Your task to perform on an android device: open chrome privacy settings Image 0: 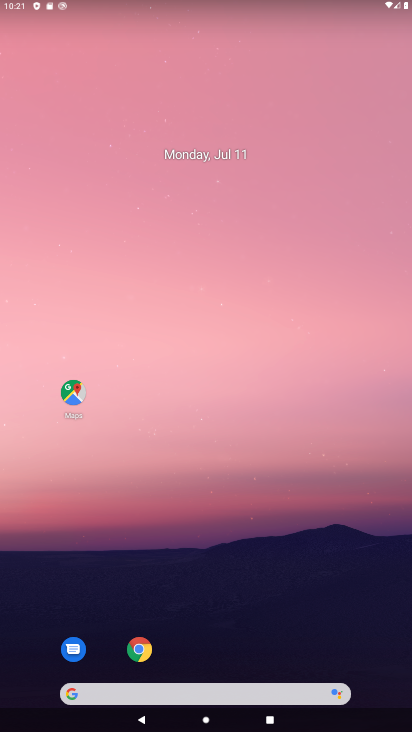
Step 0: click (140, 650)
Your task to perform on an android device: open chrome privacy settings Image 1: 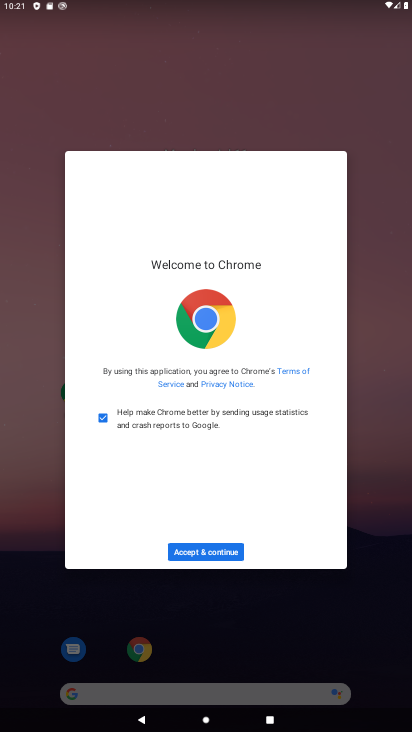
Step 1: click (224, 553)
Your task to perform on an android device: open chrome privacy settings Image 2: 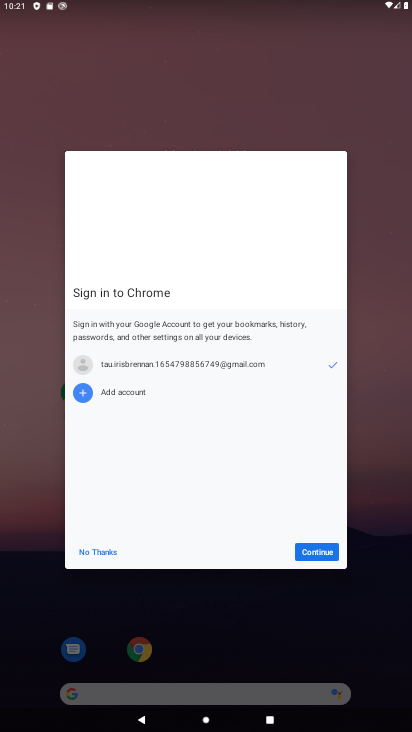
Step 2: click (311, 551)
Your task to perform on an android device: open chrome privacy settings Image 3: 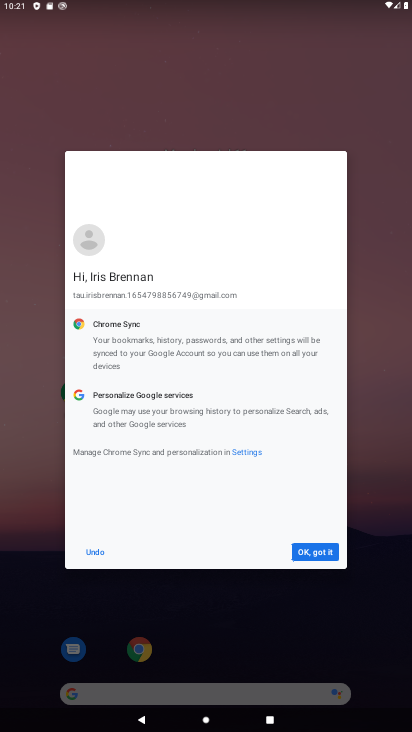
Step 3: click (311, 551)
Your task to perform on an android device: open chrome privacy settings Image 4: 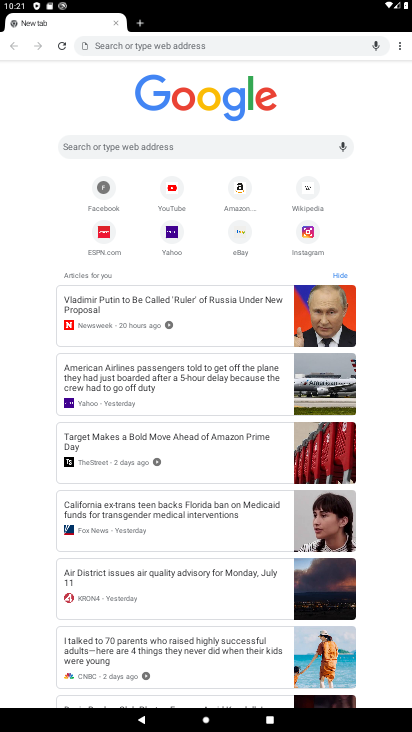
Step 4: click (402, 44)
Your task to perform on an android device: open chrome privacy settings Image 5: 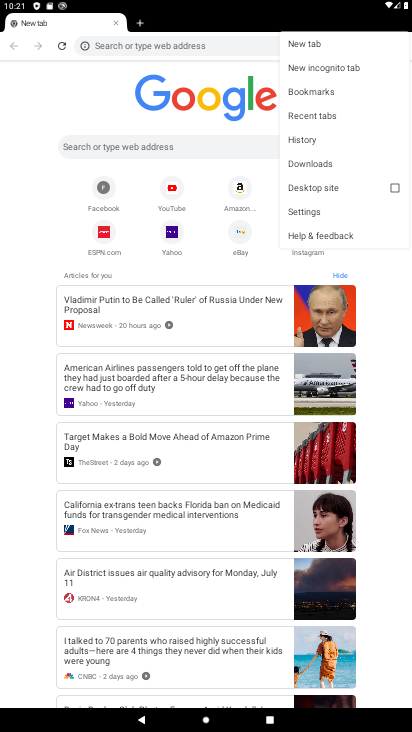
Step 5: click (316, 212)
Your task to perform on an android device: open chrome privacy settings Image 6: 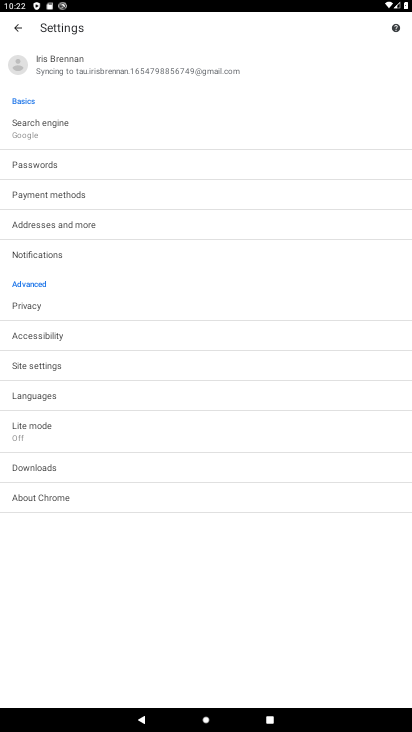
Step 6: click (37, 307)
Your task to perform on an android device: open chrome privacy settings Image 7: 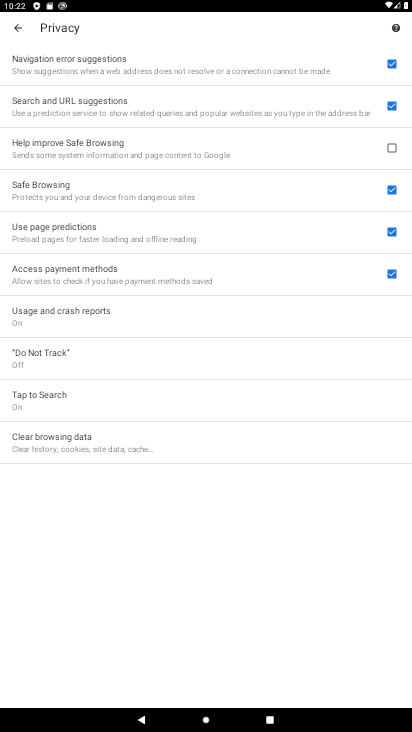
Step 7: task complete